Your task to perform on an android device: Open wifi settings Image 0: 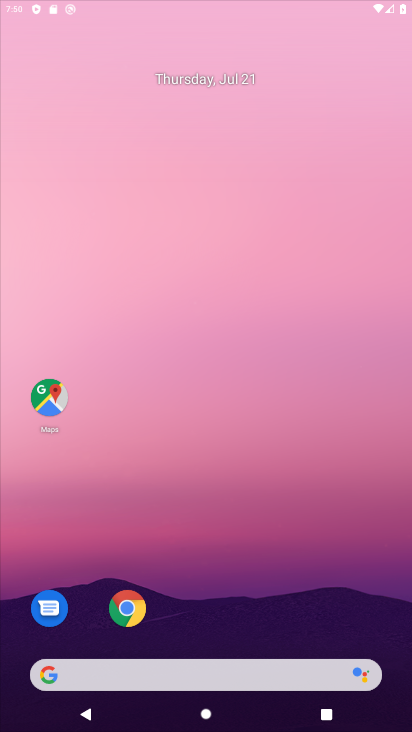
Step 0: press home button
Your task to perform on an android device: Open wifi settings Image 1: 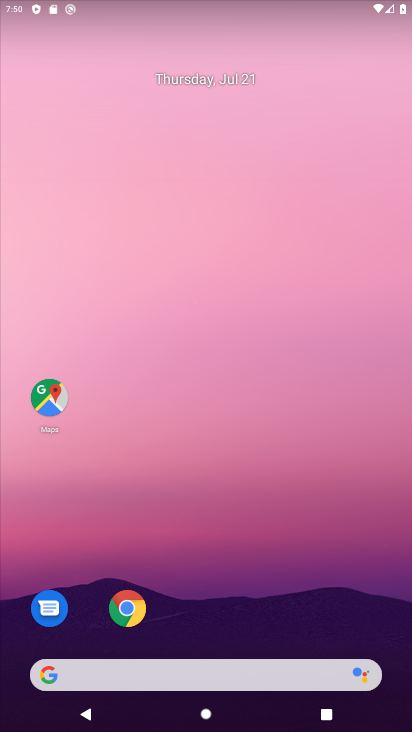
Step 1: drag from (211, 643) to (290, 2)
Your task to perform on an android device: Open wifi settings Image 2: 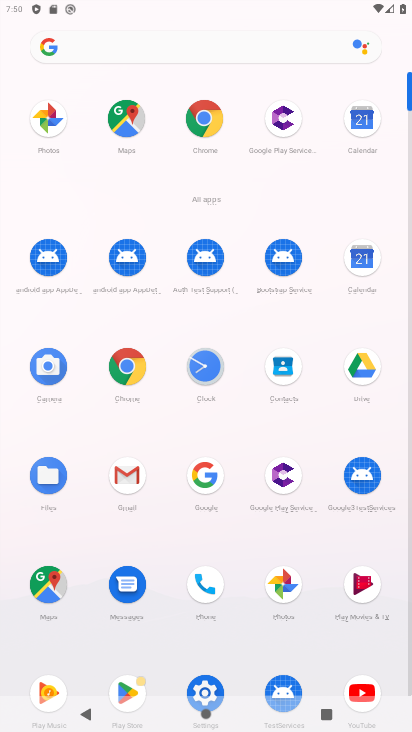
Step 2: drag from (240, 552) to (265, 211)
Your task to perform on an android device: Open wifi settings Image 3: 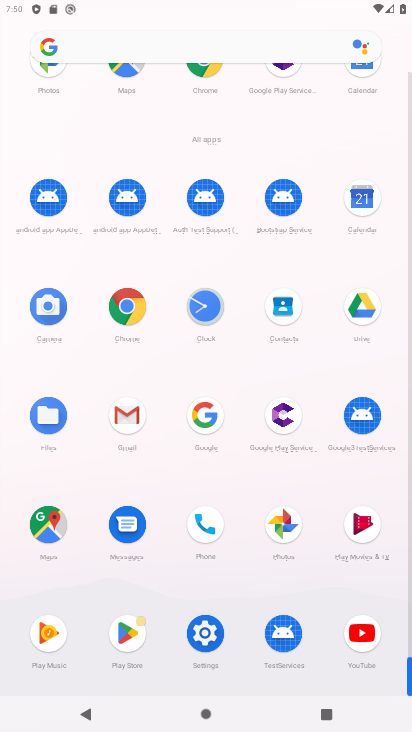
Step 3: click (201, 625)
Your task to perform on an android device: Open wifi settings Image 4: 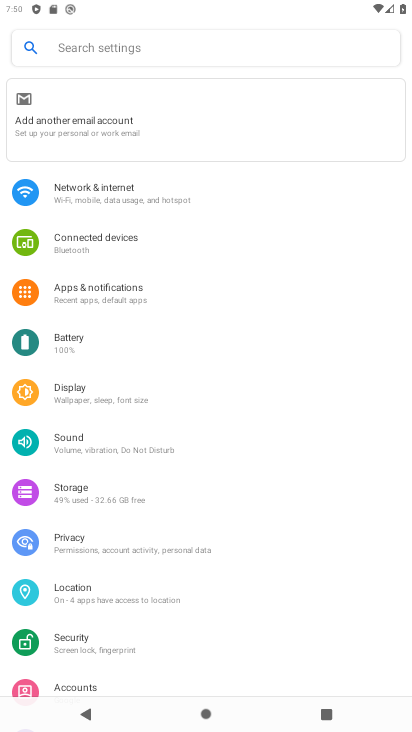
Step 4: click (158, 187)
Your task to perform on an android device: Open wifi settings Image 5: 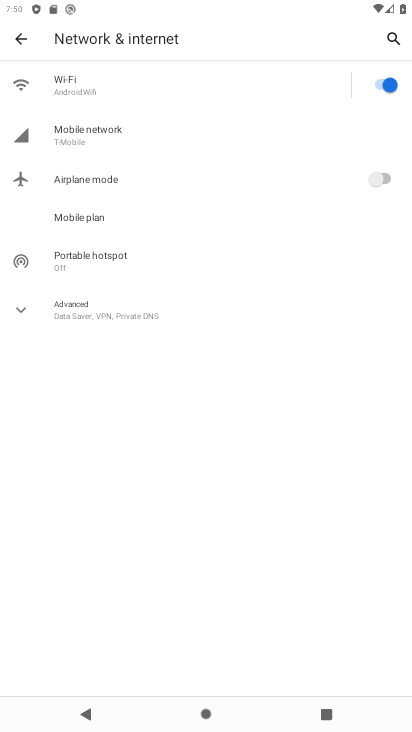
Step 5: click (137, 82)
Your task to perform on an android device: Open wifi settings Image 6: 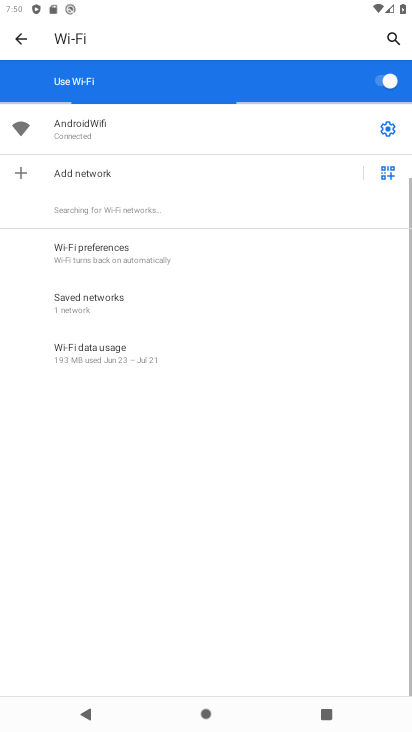
Step 6: task complete